Your task to perform on an android device: turn off notifications settings in the gmail app Image 0: 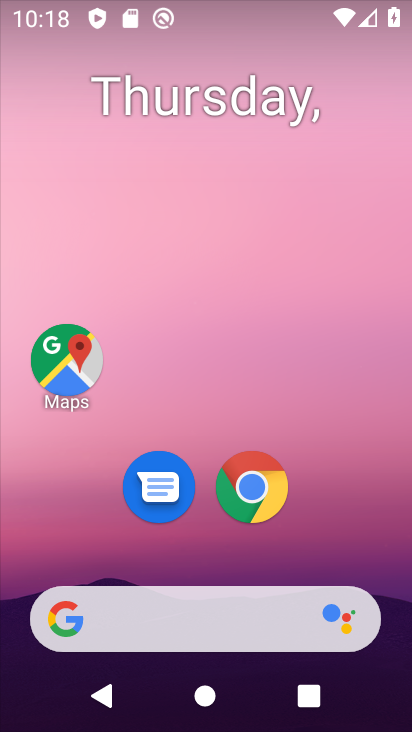
Step 0: drag from (322, 547) to (184, 40)
Your task to perform on an android device: turn off notifications settings in the gmail app Image 1: 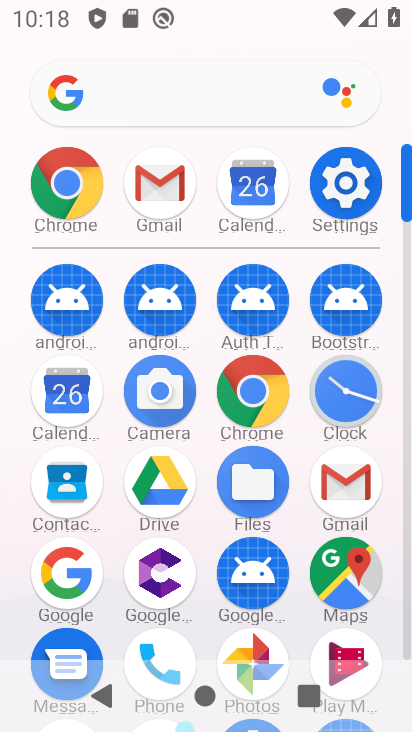
Step 1: click (166, 189)
Your task to perform on an android device: turn off notifications settings in the gmail app Image 2: 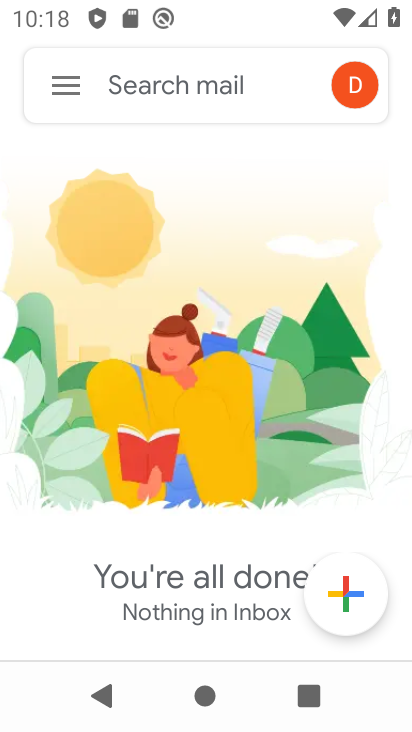
Step 2: click (70, 88)
Your task to perform on an android device: turn off notifications settings in the gmail app Image 3: 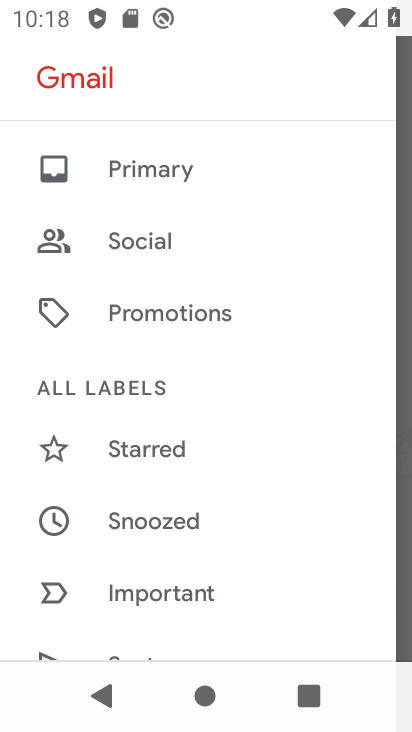
Step 3: drag from (170, 517) to (144, 153)
Your task to perform on an android device: turn off notifications settings in the gmail app Image 4: 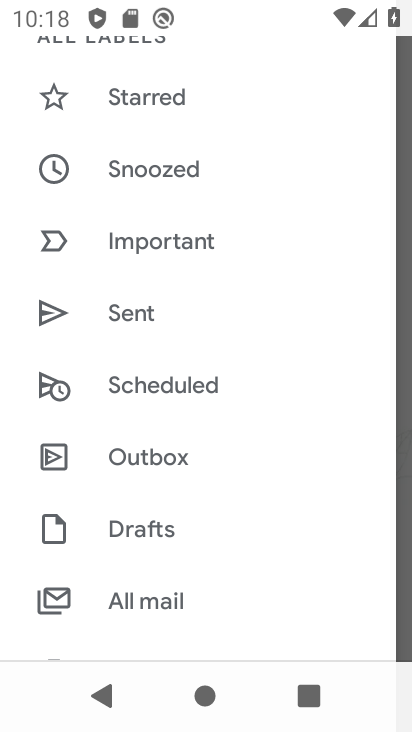
Step 4: drag from (209, 599) to (182, 148)
Your task to perform on an android device: turn off notifications settings in the gmail app Image 5: 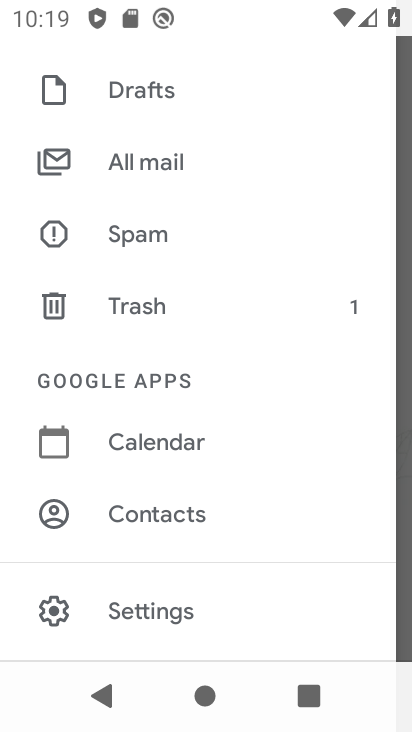
Step 5: click (139, 606)
Your task to perform on an android device: turn off notifications settings in the gmail app Image 6: 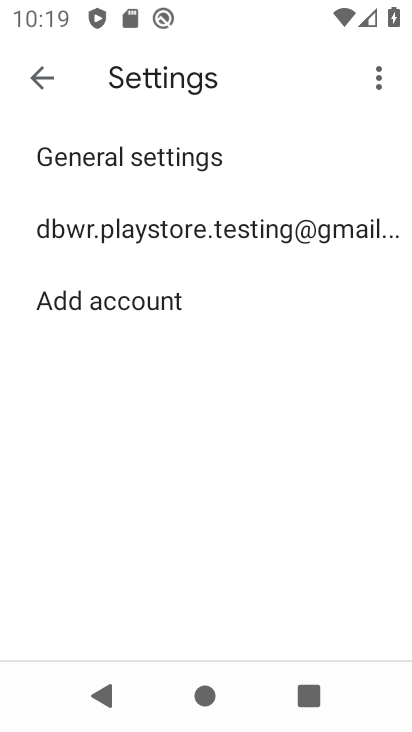
Step 6: click (142, 234)
Your task to perform on an android device: turn off notifications settings in the gmail app Image 7: 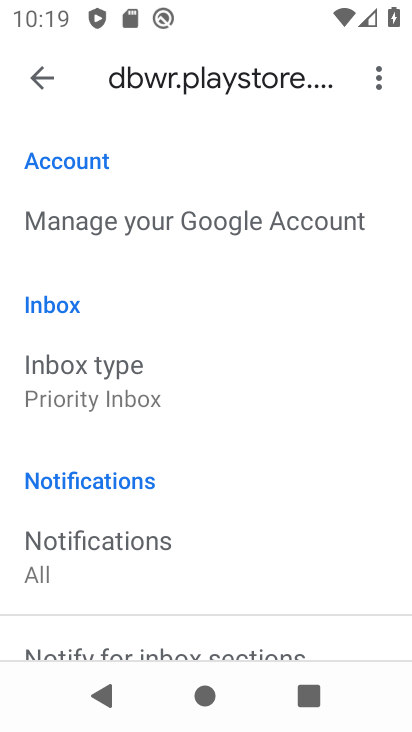
Step 7: drag from (148, 564) to (157, 275)
Your task to perform on an android device: turn off notifications settings in the gmail app Image 8: 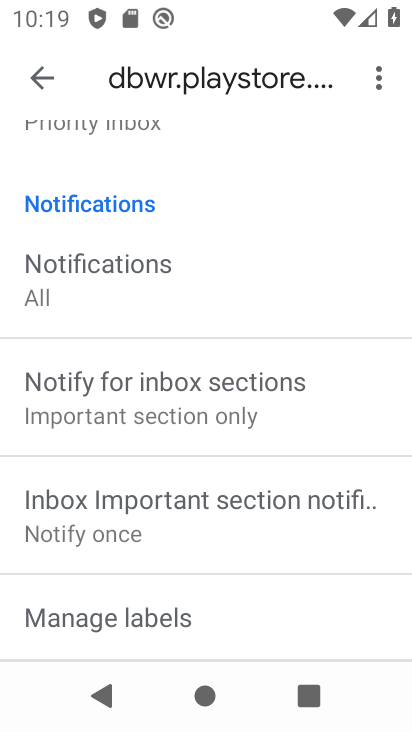
Step 8: drag from (137, 609) to (236, 277)
Your task to perform on an android device: turn off notifications settings in the gmail app Image 9: 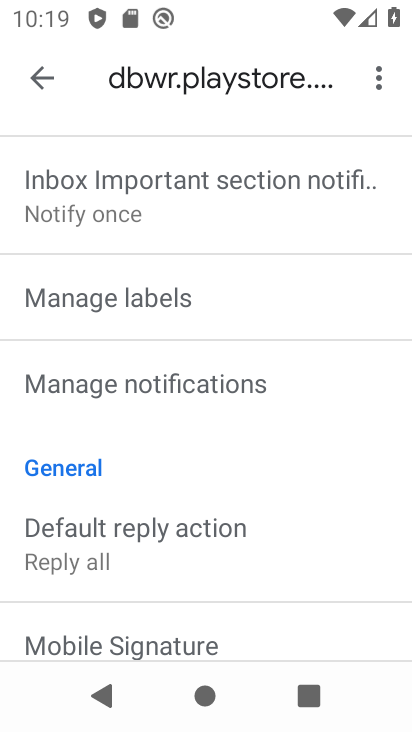
Step 9: click (181, 384)
Your task to perform on an android device: turn off notifications settings in the gmail app Image 10: 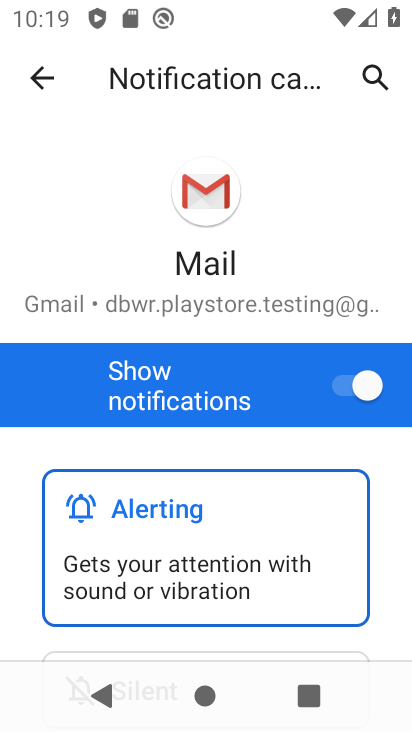
Step 10: click (357, 386)
Your task to perform on an android device: turn off notifications settings in the gmail app Image 11: 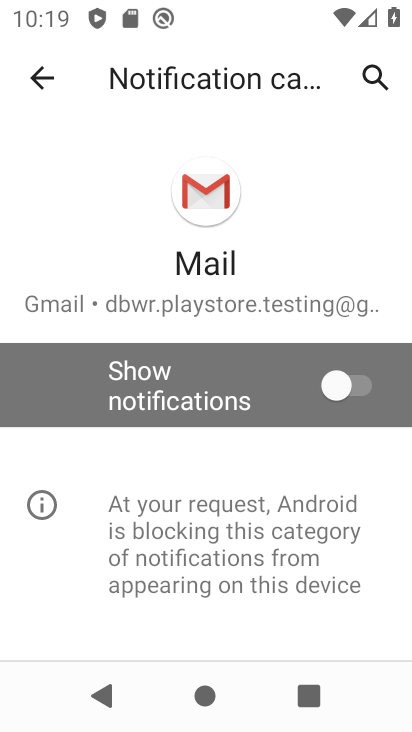
Step 11: task complete